Your task to perform on an android device: Open the web browser Image 0: 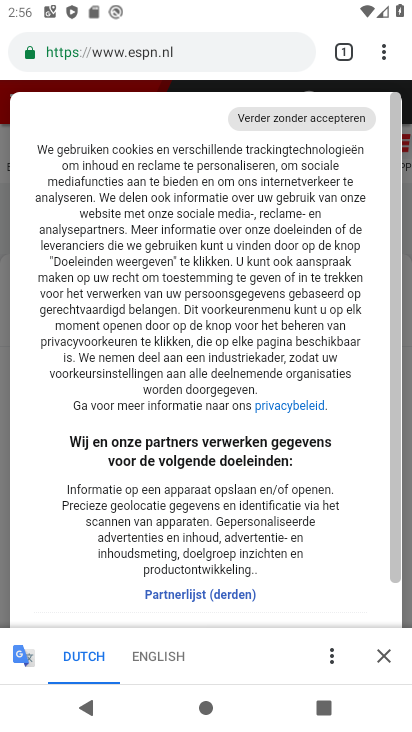
Step 0: task complete